Your task to perform on an android device: Open Google Image 0: 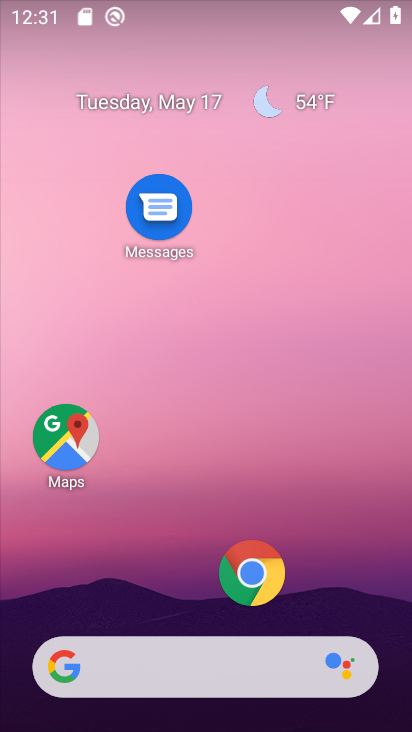
Step 0: drag from (314, 605) to (335, 4)
Your task to perform on an android device: Open Google Image 1: 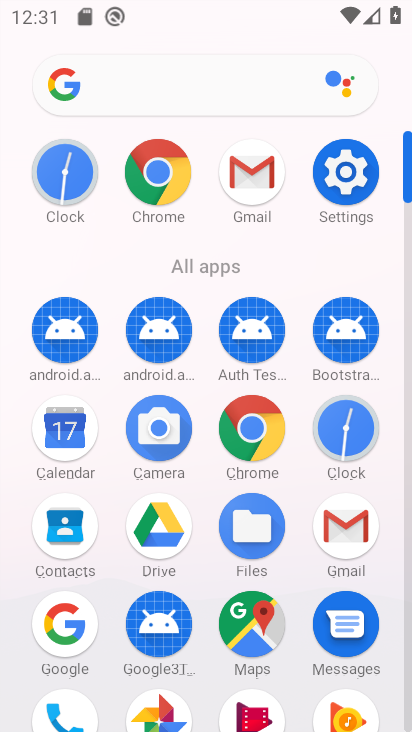
Step 1: click (59, 621)
Your task to perform on an android device: Open Google Image 2: 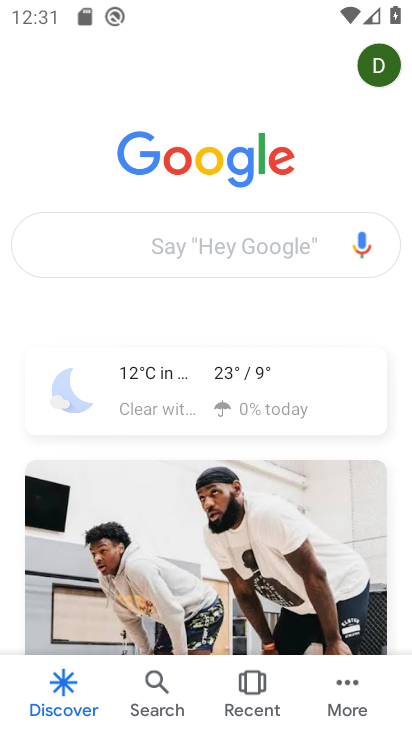
Step 2: task complete